Your task to perform on an android device: open a new tab in the chrome app Image 0: 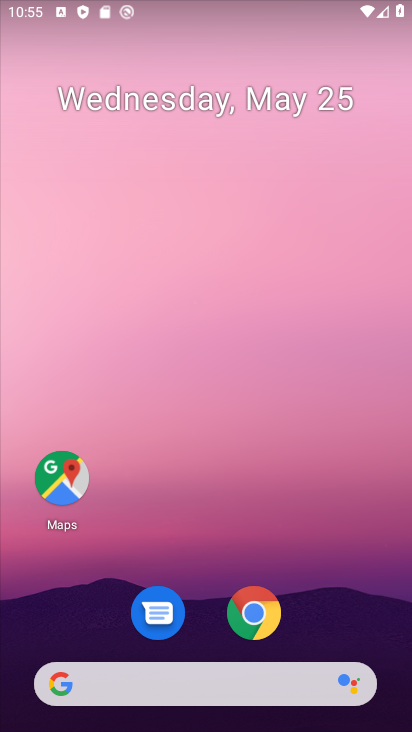
Step 0: click (247, 616)
Your task to perform on an android device: open a new tab in the chrome app Image 1: 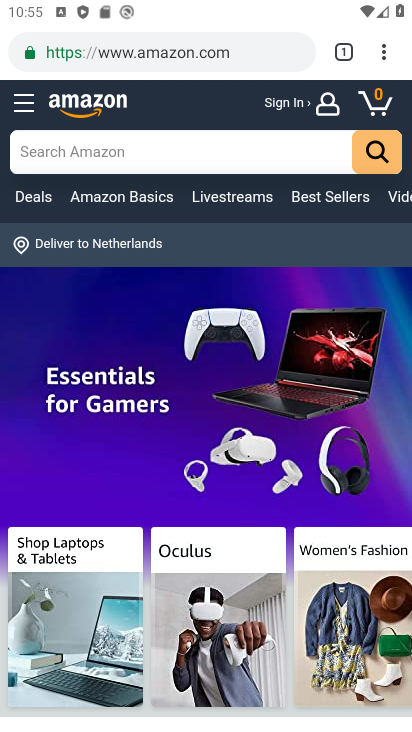
Step 1: click (384, 39)
Your task to perform on an android device: open a new tab in the chrome app Image 2: 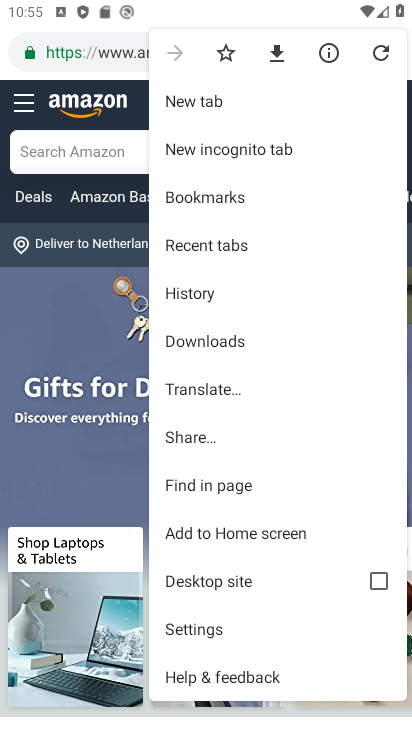
Step 2: click (308, 82)
Your task to perform on an android device: open a new tab in the chrome app Image 3: 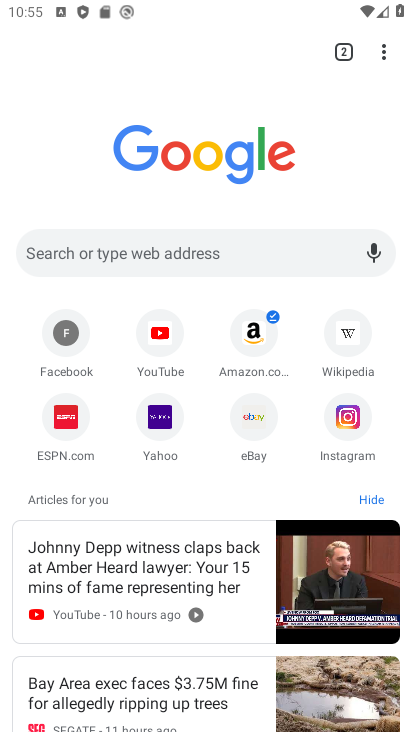
Step 3: task complete